Your task to perform on an android device: Is it going to rain tomorrow? Image 0: 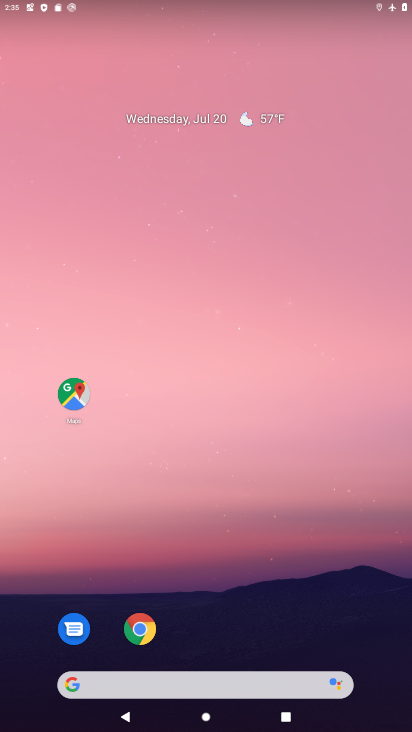
Step 0: drag from (201, 632) to (198, 161)
Your task to perform on an android device: Is it going to rain tomorrow? Image 1: 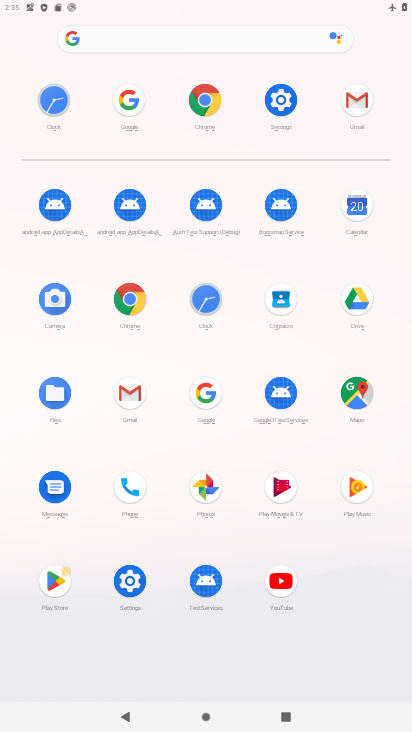
Step 1: click (197, 412)
Your task to perform on an android device: Is it going to rain tomorrow? Image 2: 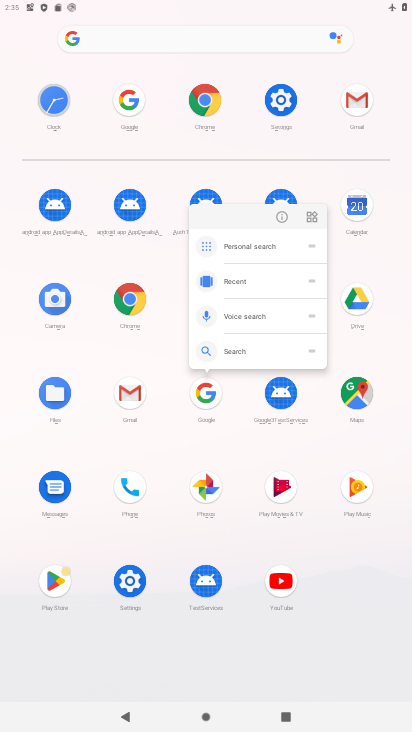
Step 2: click (197, 412)
Your task to perform on an android device: Is it going to rain tomorrow? Image 3: 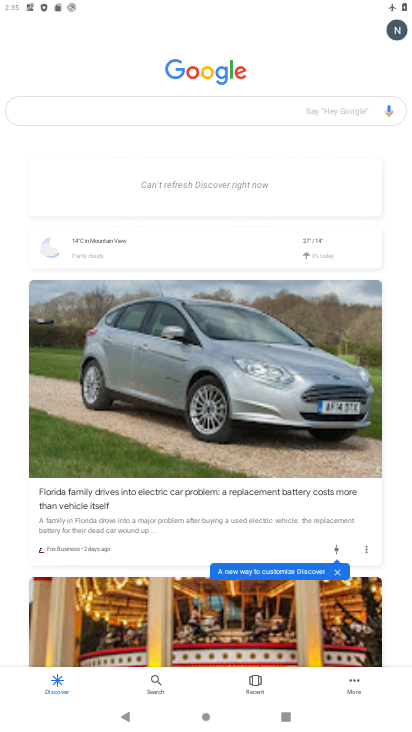
Step 3: click (77, 104)
Your task to perform on an android device: Is it going to rain tomorrow? Image 4: 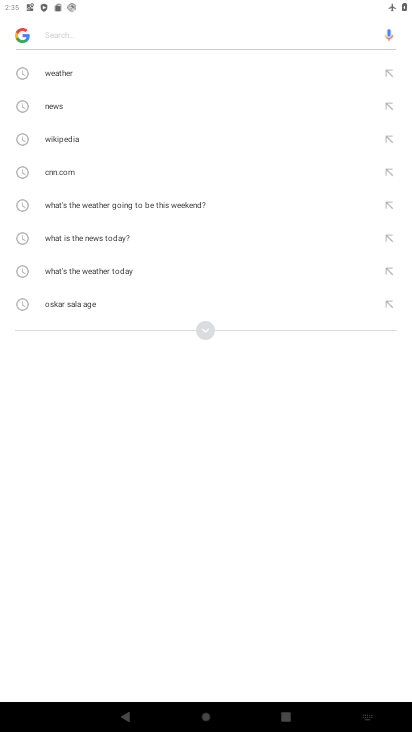
Step 4: click (69, 75)
Your task to perform on an android device: Is it going to rain tomorrow? Image 5: 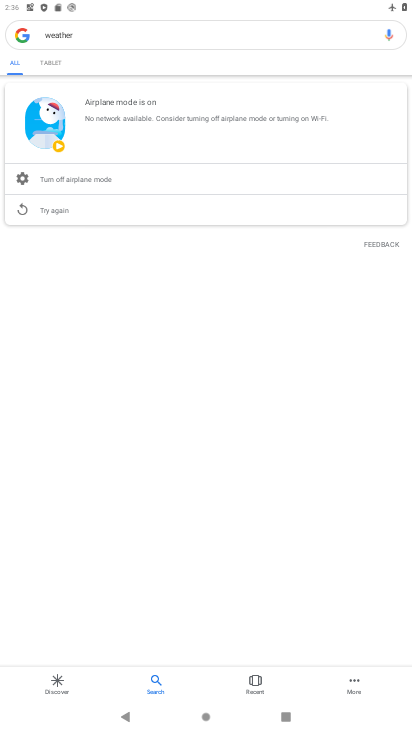
Step 5: task complete